Your task to perform on an android device: Show me productivity apps on the Play Store Image 0: 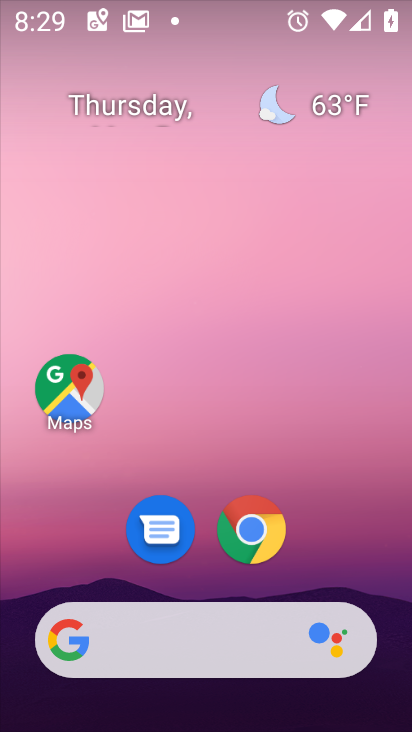
Step 0: drag from (194, 536) to (156, 35)
Your task to perform on an android device: Show me productivity apps on the Play Store Image 1: 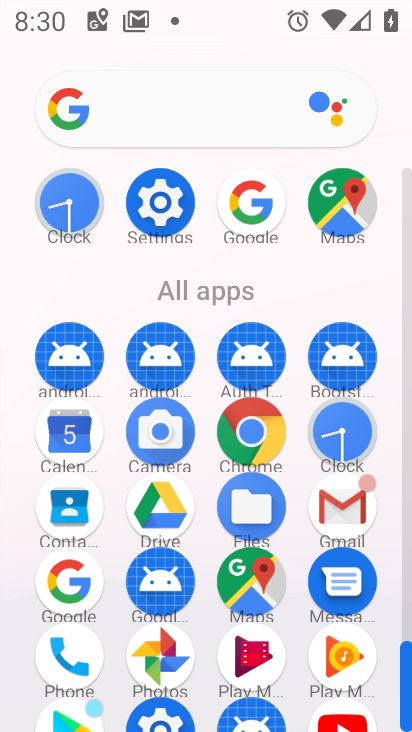
Step 1: click (64, 722)
Your task to perform on an android device: Show me productivity apps on the Play Store Image 2: 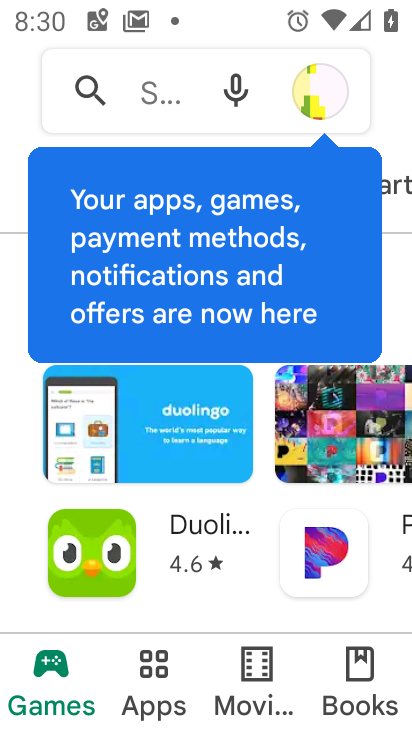
Step 2: click (155, 693)
Your task to perform on an android device: Show me productivity apps on the Play Store Image 3: 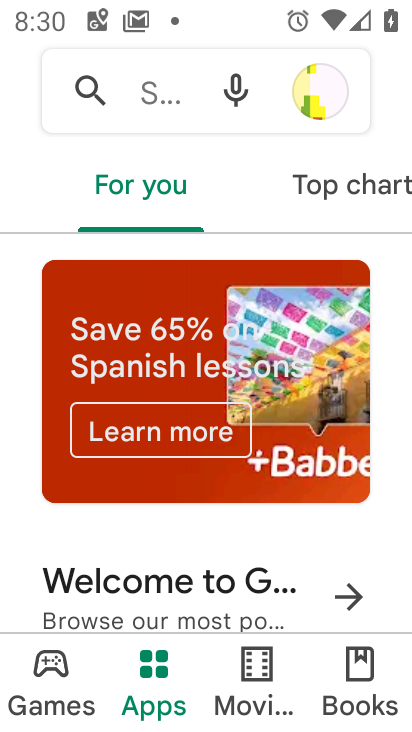
Step 3: drag from (357, 174) to (73, 179)
Your task to perform on an android device: Show me productivity apps on the Play Store Image 4: 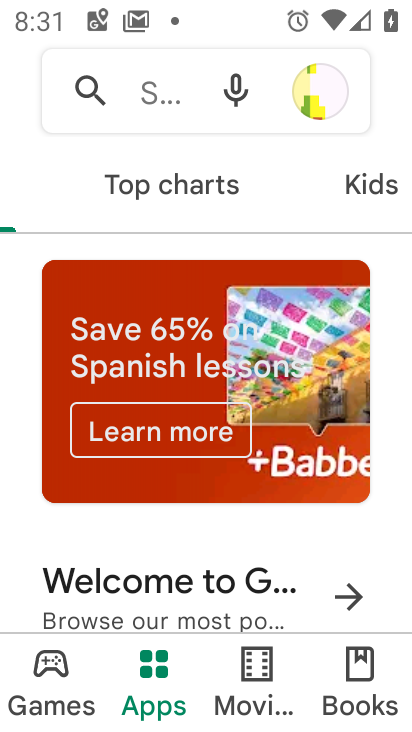
Step 4: drag from (320, 176) to (48, 169)
Your task to perform on an android device: Show me productivity apps on the Play Store Image 5: 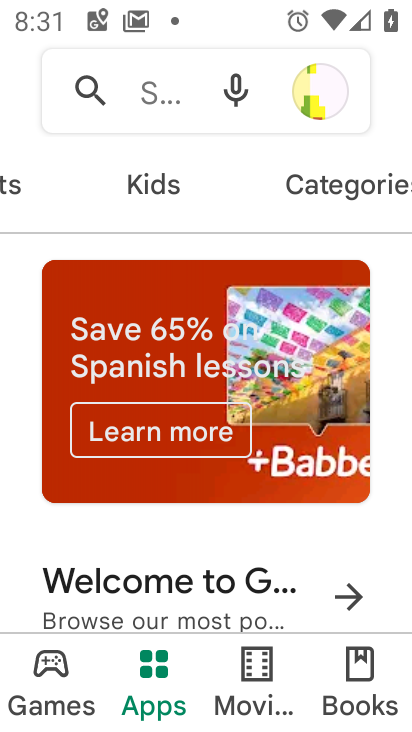
Step 5: drag from (319, 177) to (64, 196)
Your task to perform on an android device: Show me productivity apps on the Play Store Image 6: 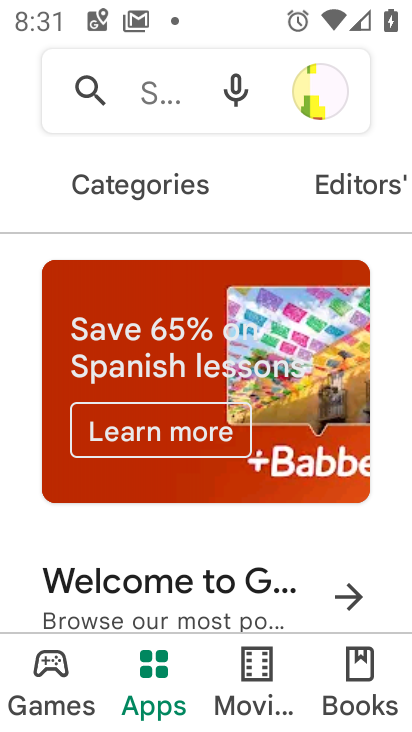
Step 6: drag from (290, 206) to (89, 188)
Your task to perform on an android device: Show me productivity apps on the Play Store Image 7: 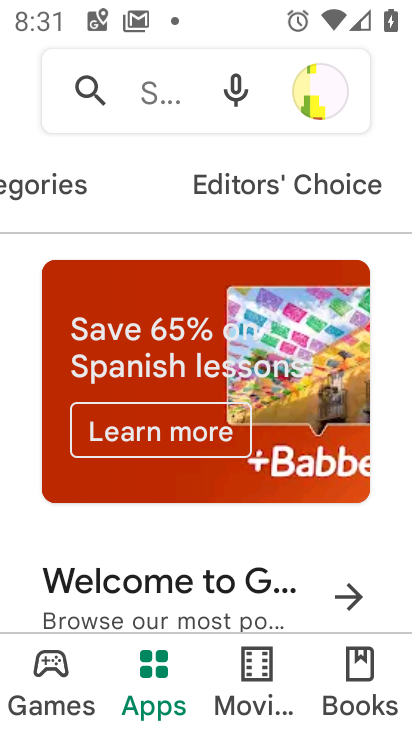
Step 7: drag from (274, 190) to (65, 200)
Your task to perform on an android device: Show me productivity apps on the Play Store Image 8: 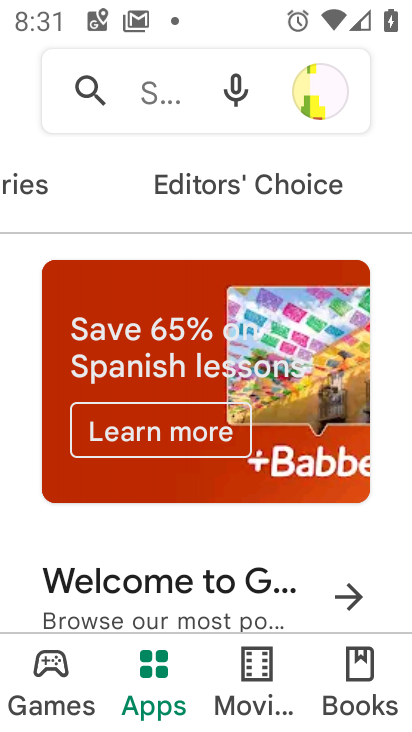
Step 8: drag from (303, 188) to (63, 206)
Your task to perform on an android device: Show me productivity apps on the Play Store Image 9: 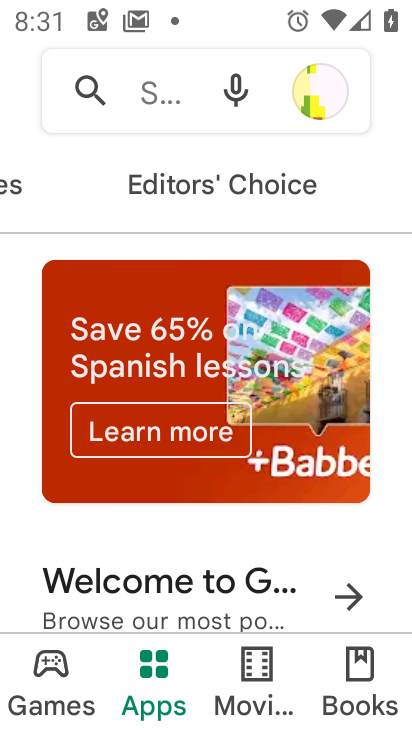
Step 9: drag from (164, 186) to (352, 183)
Your task to perform on an android device: Show me productivity apps on the Play Store Image 10: 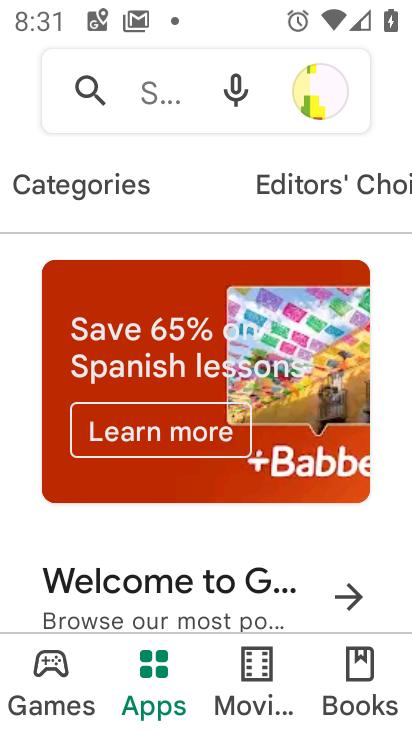
Step 10: click (123, 193)
Your task to perform on an android device: Show me productivity apps on the Play Store Image 11: 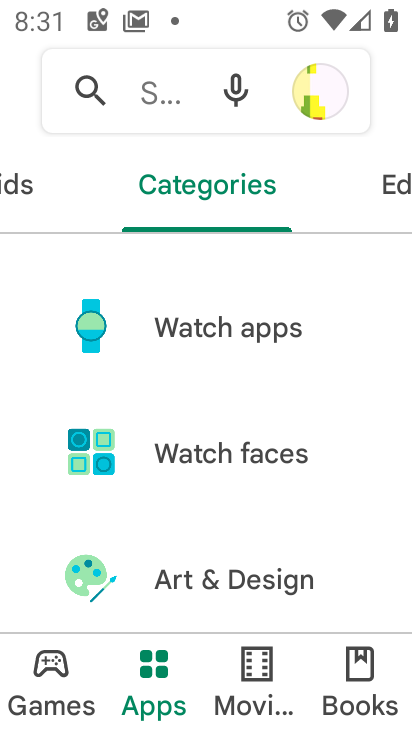
Step 11: drag from (266, 567) to (239, 217)
Your task to perform on an android device: Show me productivity apps on the Play Store Image 12: 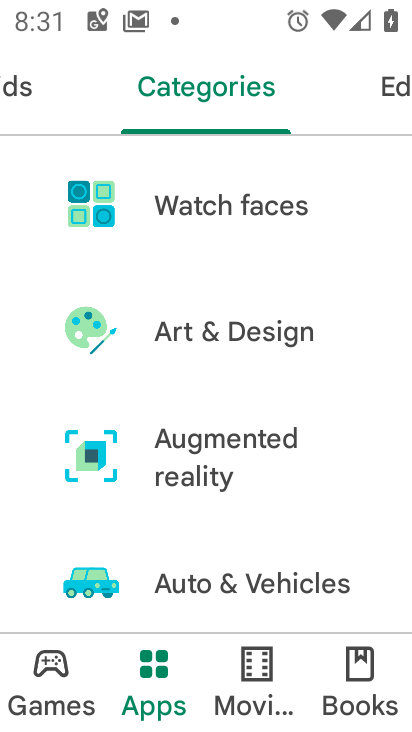
Step 12: drag from (278, 527) to (245, 129)
Your task to perform on an android device: Show me productivity apps on the Play Store Image 13: 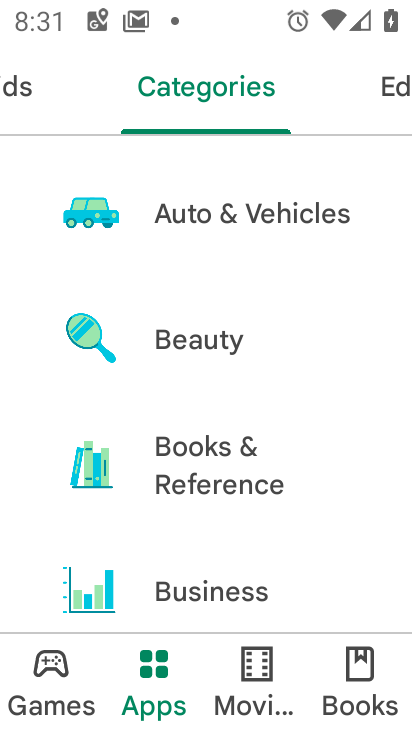
Step 13: drag from (254, 504) to (238, 173)
Your task to perform on an android device: Show me productivity apps on the Play Store Image 14: 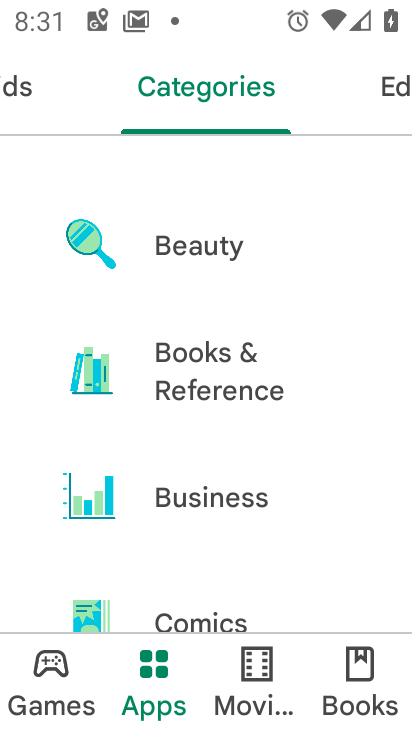
Step 14: drag from (304, 568) to (268, 186)
Your task to perform on an android device: Show me productivity apps on the Play Store Image 15: 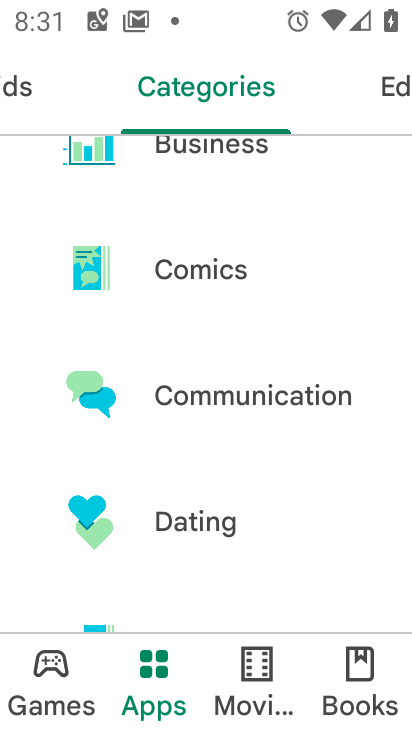
Step 15: drag from (272, 500) to (270, 222)
Your task to perform on an android device: Show me productivity apps on the Play Store Image 16: 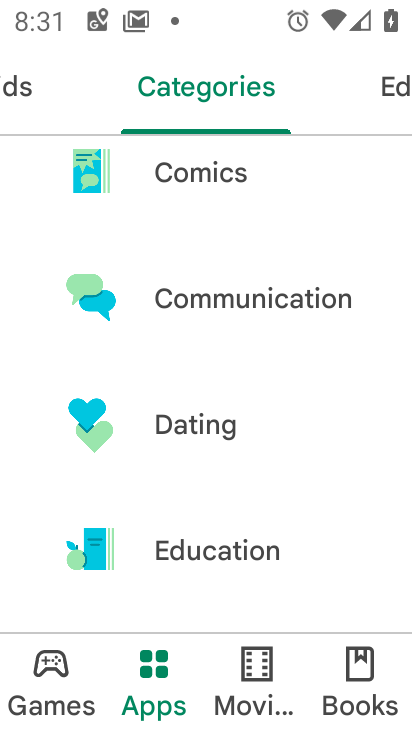
Step 16: drag from (235, 507) to (248, 231)
Your task to perform on an android device: Show me productivity apps on the Play Store Image 17: 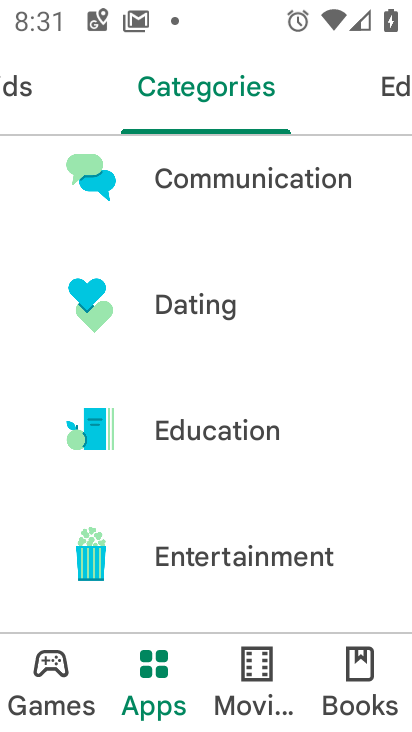
Step 17: drag from (262, 521) to (259, 259)
Your task to perform on an android device: Show me productivity apps on the Play Store Image 18: 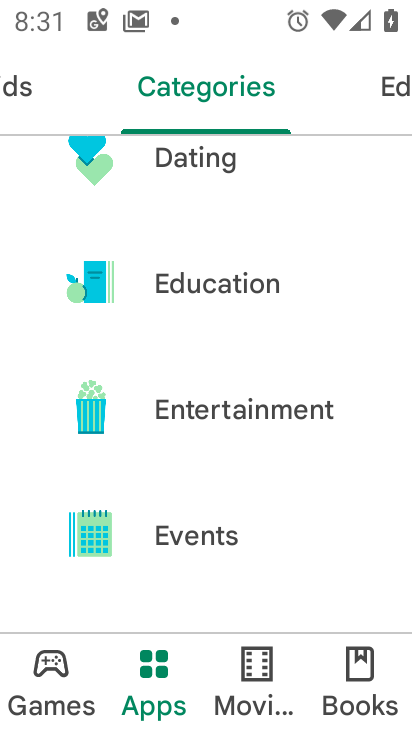
Step 18: drag from (236, 521) to (215, 245)
Your task to perform on an android device: Show me productivity apps on the Play Store Image 19: 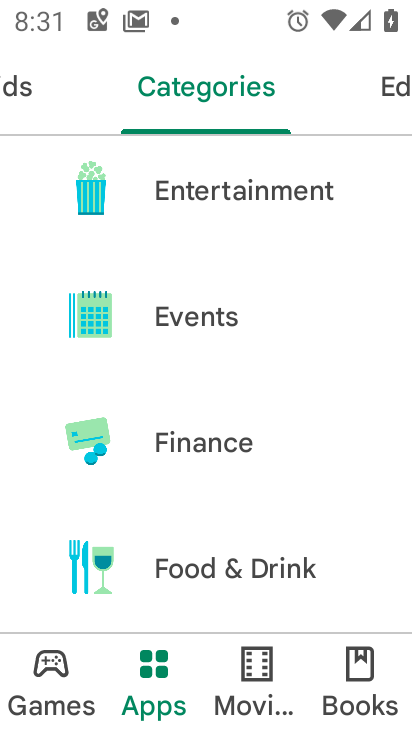
Step 19: drag from (209, 576) to (225, 235)
Your task to perform on an android device: Show me productivity apps on the Play Store Image 20: 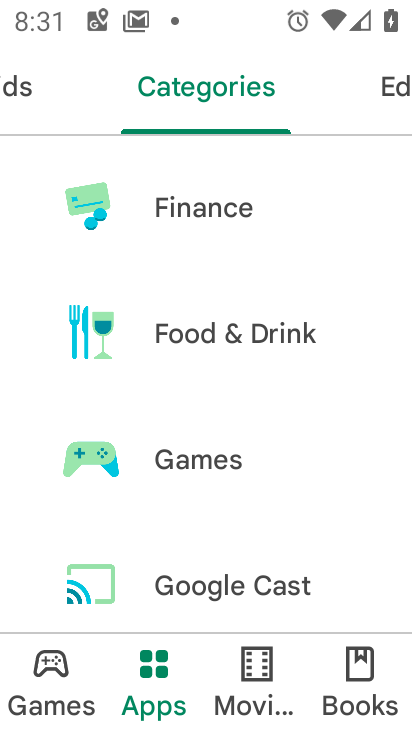
Step 20: drag from (224, 553) to (236, 226)
Your task to perform on an android device: Show me productivity apps on the Play Store Image 21: 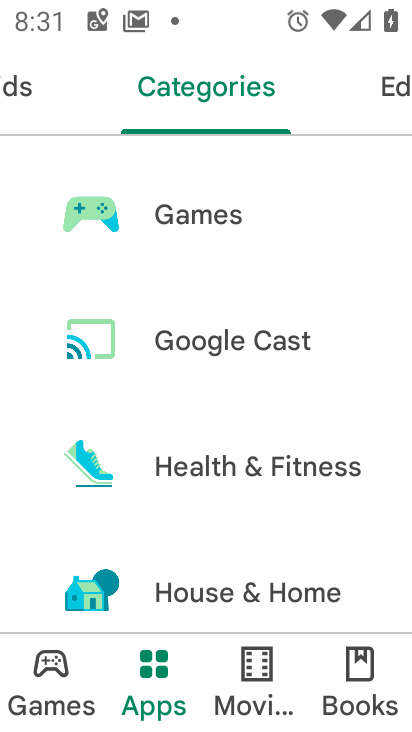
Step 21: drag from (225, 600) to (250, 215)
Your task to perform on an android device: Show me productivity apps on the Play Store Image 22: 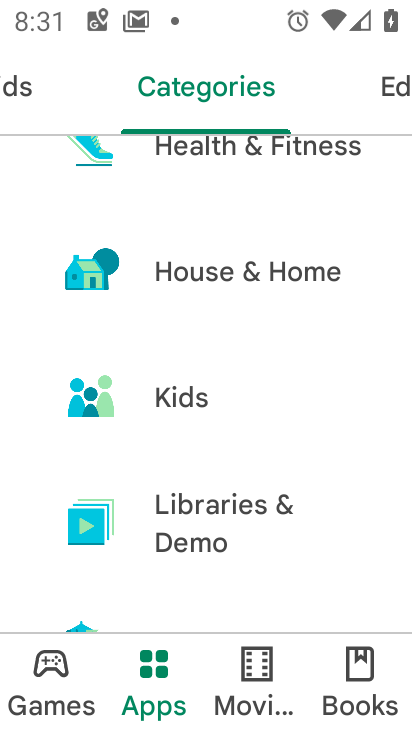
Step 22: drag from (261, 578) to (273, 222)
Your task to perform on an android device: Show me productivity apps on the Play Store Image 23: 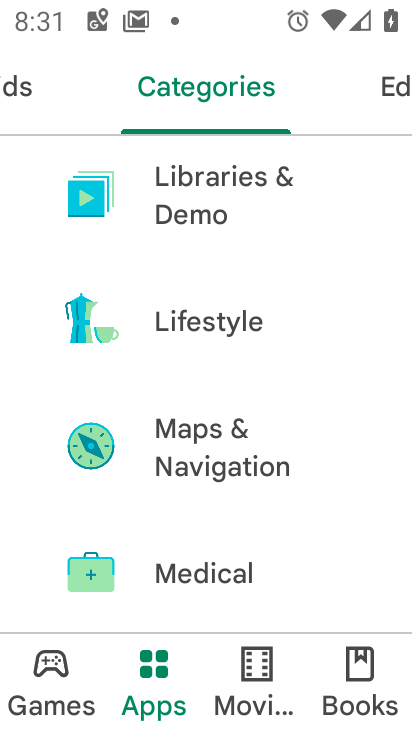
Step 23: drag from (275, 598) to (284, 244)
Your task to perform on an android device: Show me productivity apps on the Play Store Image 24: 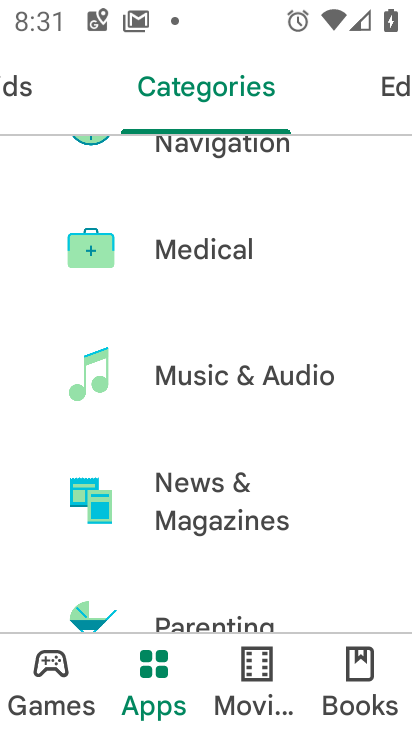
Step 24: drag from (283, 576) to (303, 275)
Your task to perform on an android device: Show me productivity apps on the Play Store Image 25: 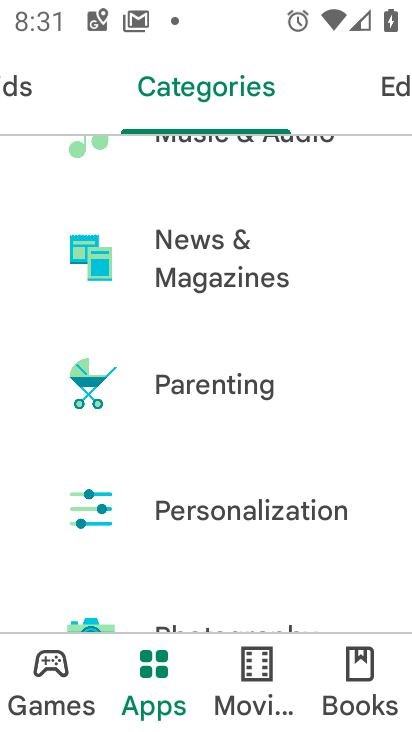
Step 25: drag from (227, 589) to (233, 322)
Your task to perform on an android device: Show me productivity apps on the Play Store Image 26: 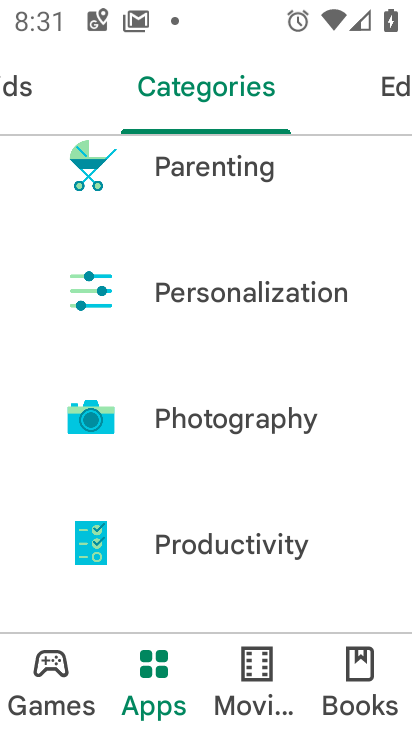
Step 26: click (231, 543)
Your task to perform on an android device: Show me productivity apps on the Play Store Image 27: 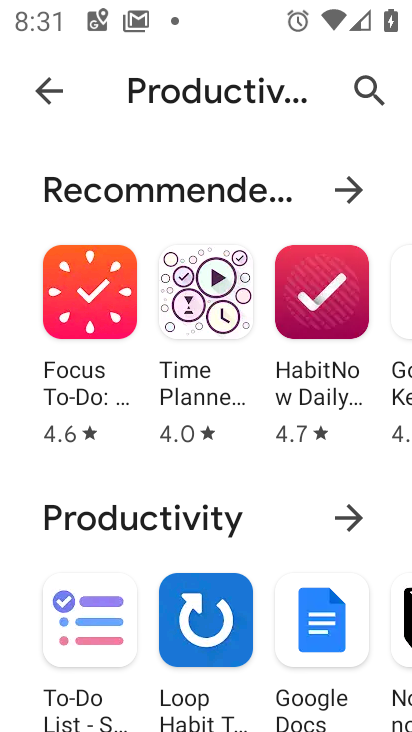
Step 27: task complete